Your task to perform on an android device: check out phone information Image 0: 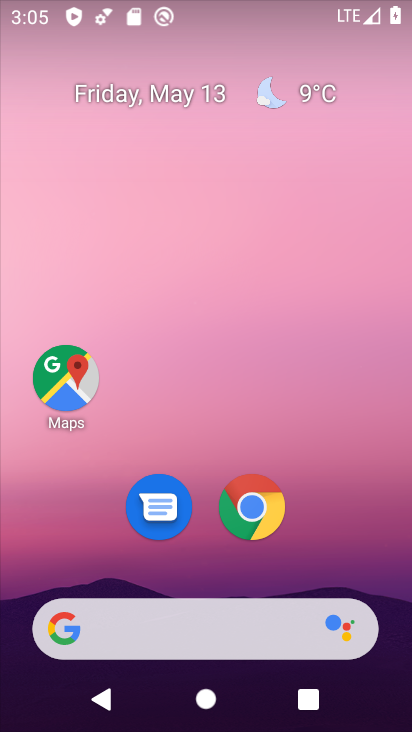
Step 0: drag from (249, 665) to (209, 13)
Your task to perform on an android device: check out phone information Image 1: 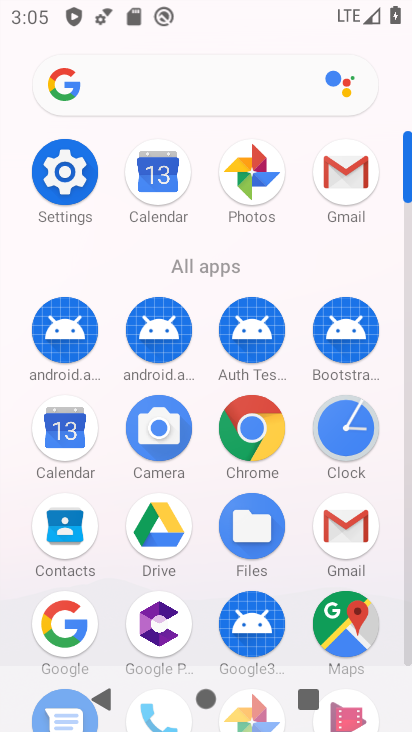
Step 1: click (53, 195)
Your task to perform on an android device: check out phone information Image 2: 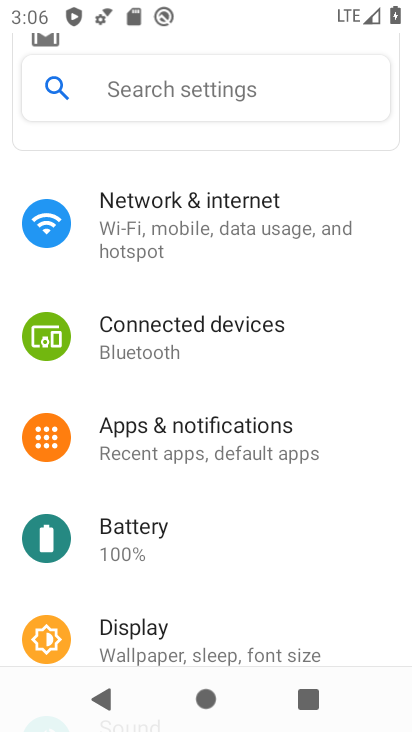
Step 2: drag from (187, 620) to (136, 70)
Your task to perform on an android device: check out phone information Image 3: 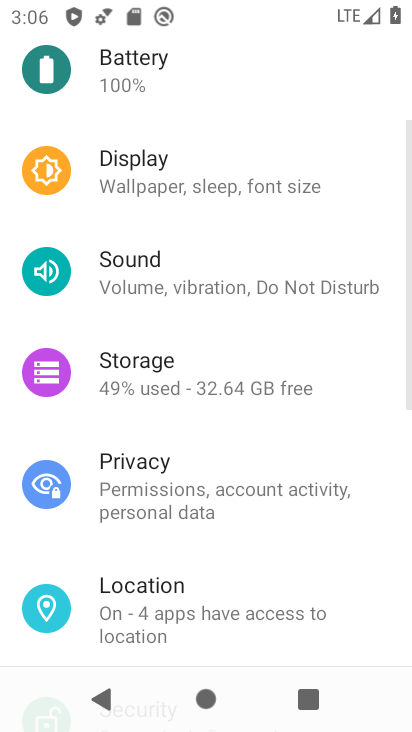
Step 3: drag from (247, 539) to (251, 216)
Your task to perform on an android device: check out phone information Image 4: 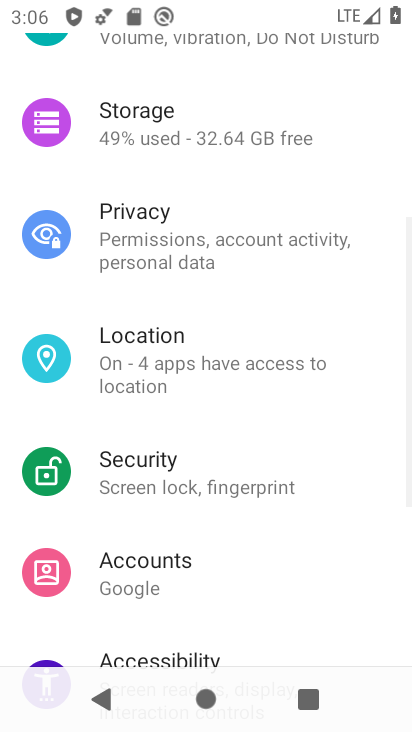
Step 4: drag from (253, 612) to (182, 198)
Your task to perform on an android device: check out phone information Image 5: 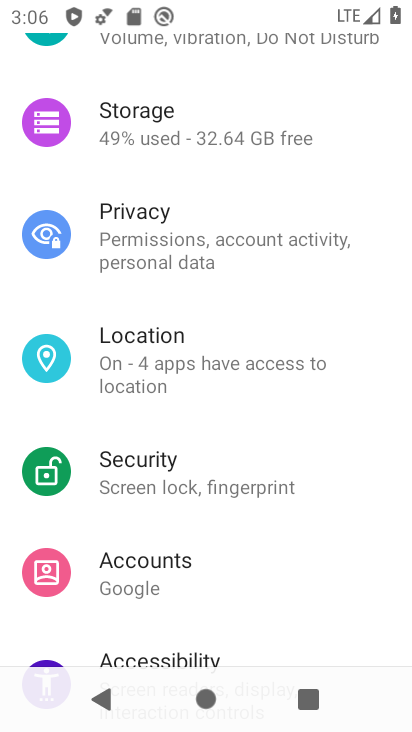
Step 5: drag from (194, 589) to (152, 237)
Your task to perform on an android device: check out phone information Image 6: 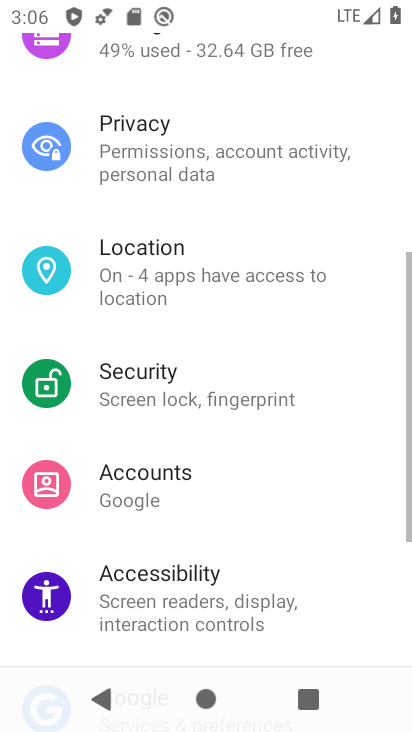
Step 6: drag from (241, 646) to (166, 159)
Your task to perform on an android device: check out phone information Image 7: 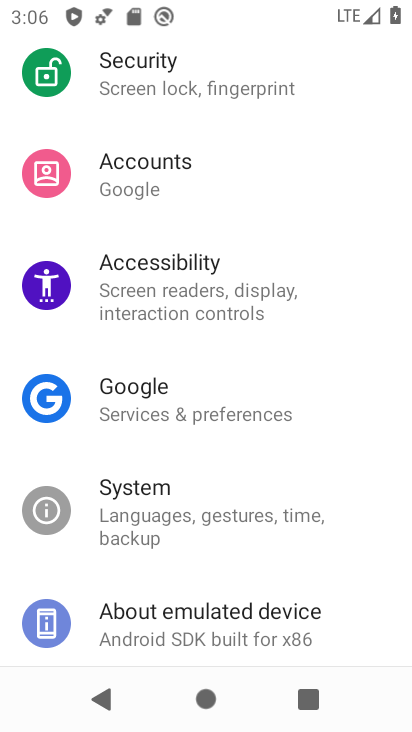
Step 7: click (283, 635)
Your task to perform on an android device: check out phone information Image 8: 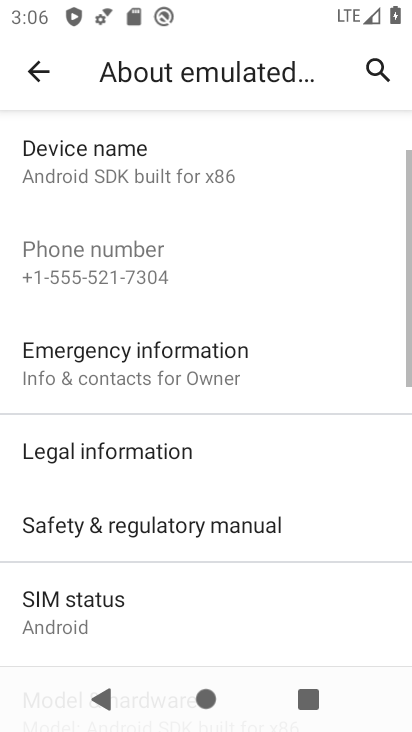
Step 8: task complete